Your task to perform on an android device: Open settings on Google Maps Image 0: 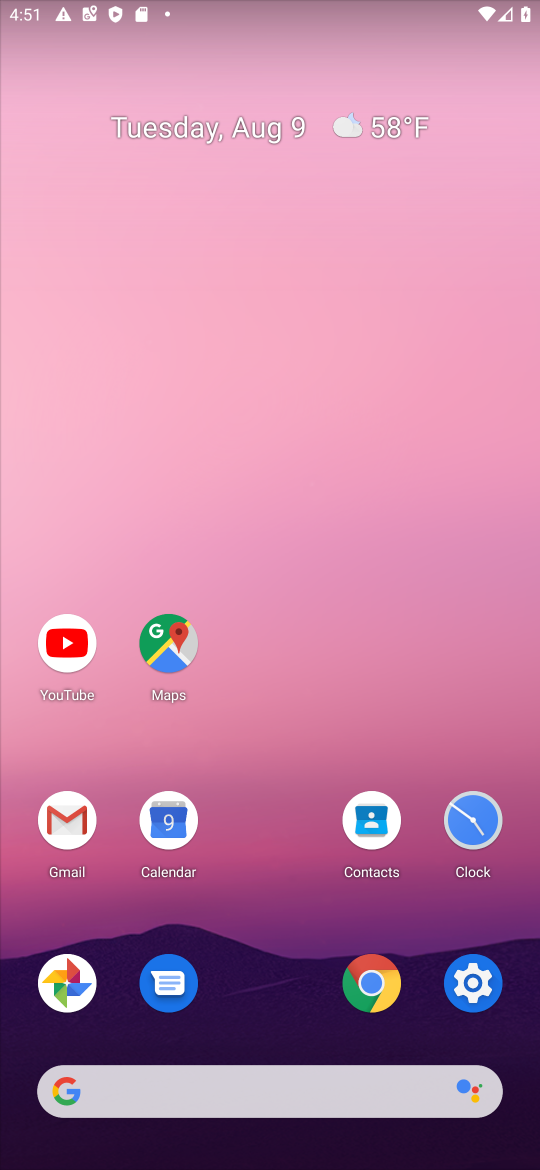
Step 0: click (151, 673)
Your task to perform on an android device: Open settings on Google Maps Image 1: 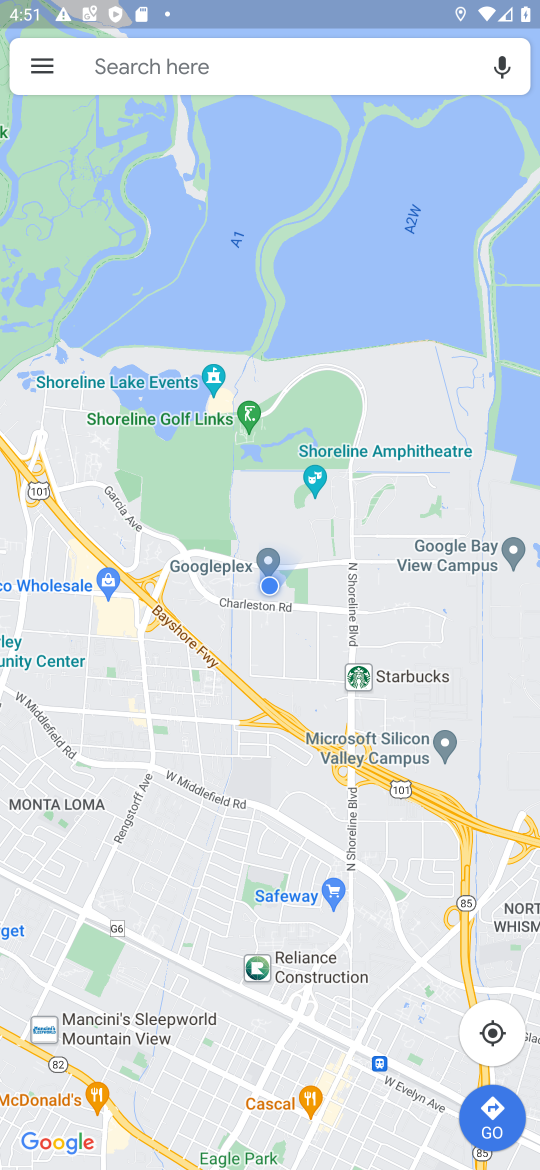
Step 1: click (40, 55)
Your task to perform on an android device: Open settings on Google Maps Image 2: 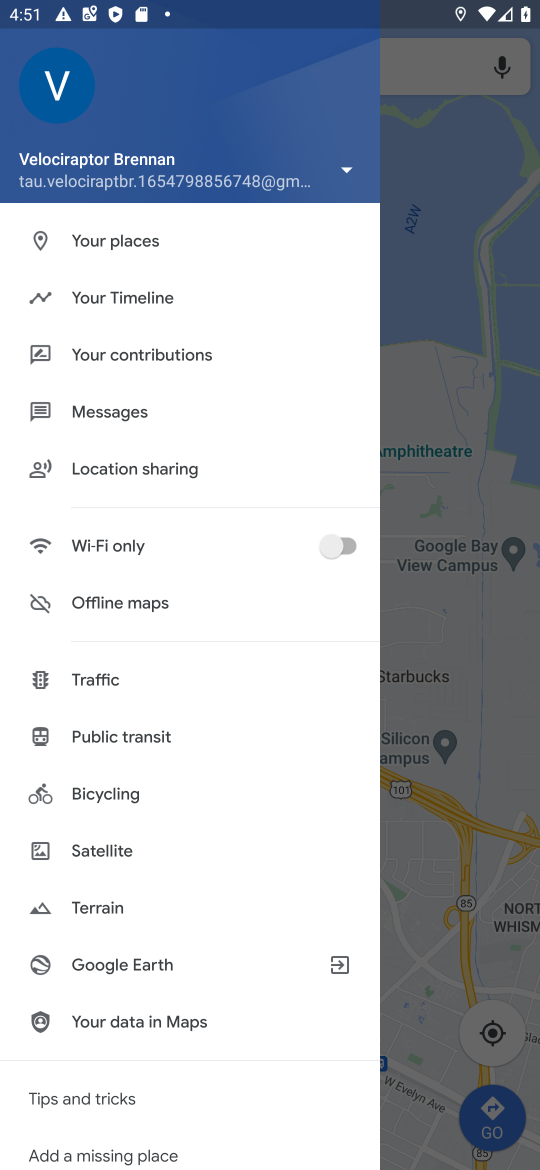
Step 2: drag from (137, 1073) to (185, 328)
Your task to perform on an android device: Open settings on Google Maps Image 3: 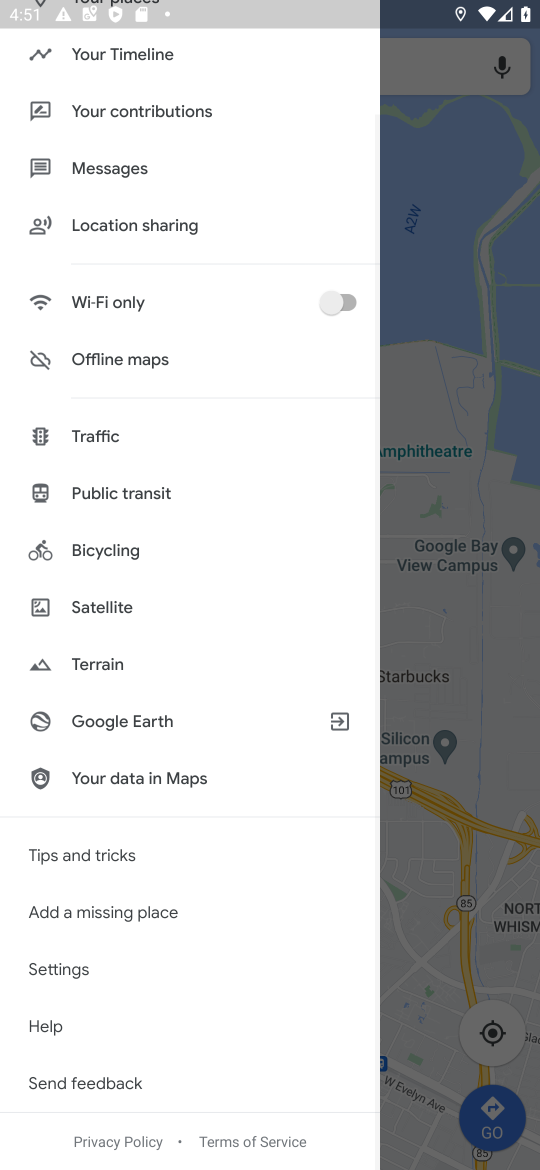
Step 3: click (57, 952)
Your task to perform on an android device: Open settings on Google Maps Image 4: 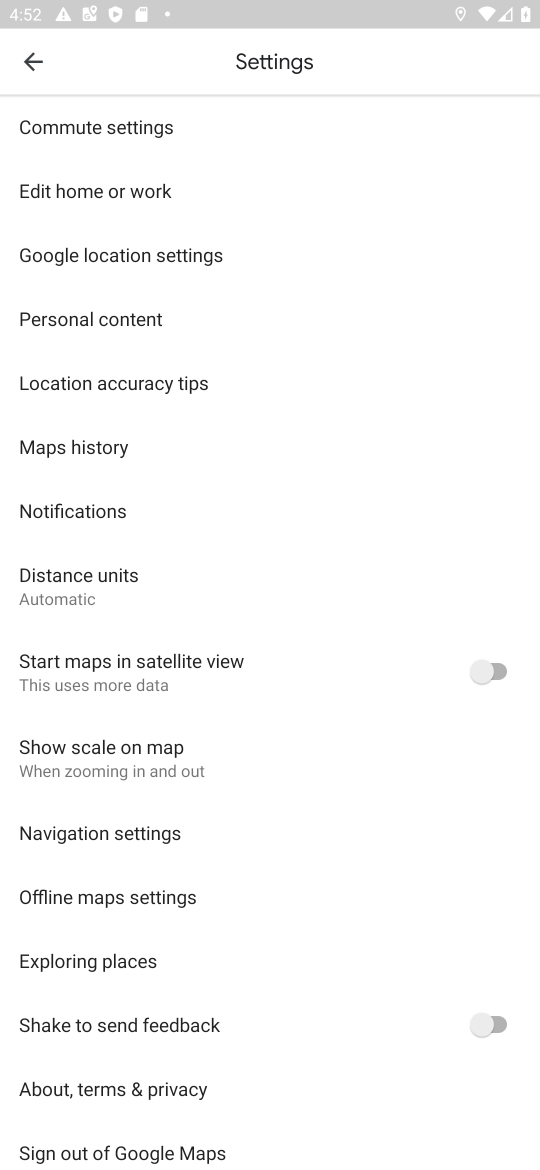
Step 4: task complete